Your task to perform on an android device: refresh tabs in the chrome app Image 0: 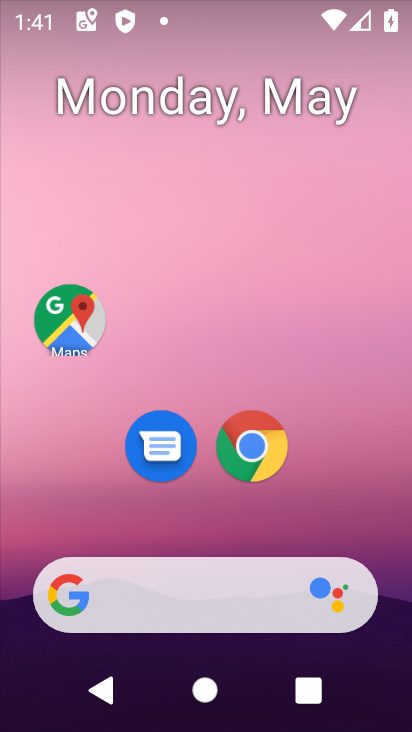
Step 0: click (272, 456)
Your task to perform on an android device: refresh tabs in the chrome app Image 1: 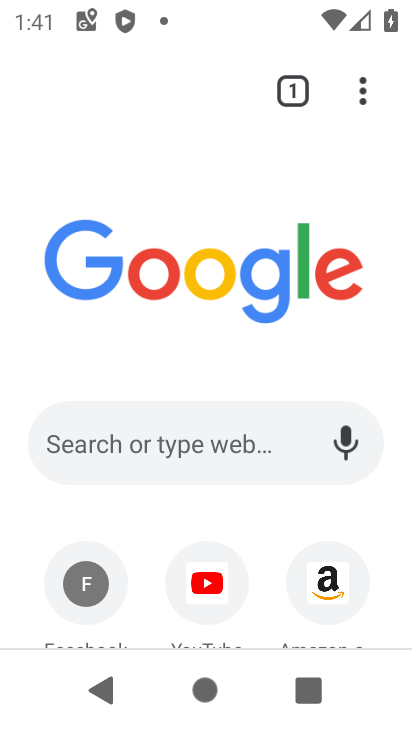
Step 1: task complete